Your task to perform on an android device: turn off improve location accuracy Image 0: 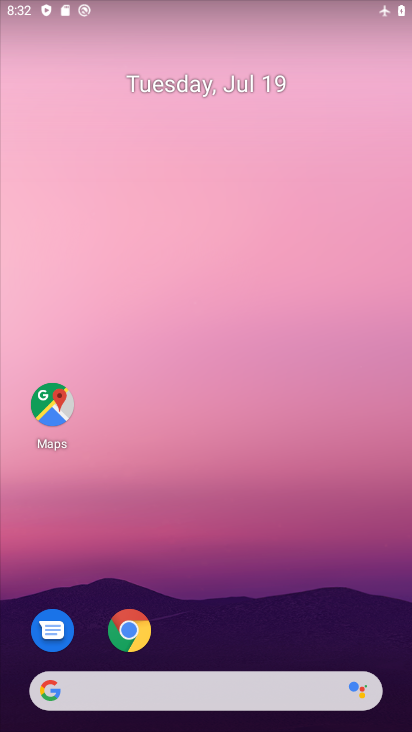
Step 0: drag from (227, 631) to (250, 168)
Your task to perform on an android device: turn off improve location accuracy Image 1: 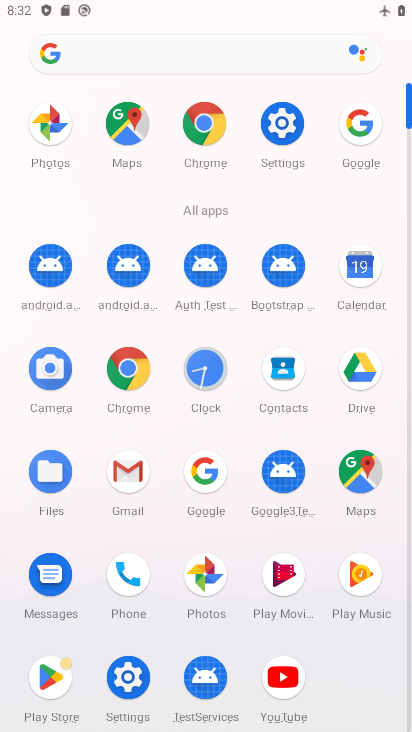
Step 1: click (278, 123)
Your task to perform on an android device: turn off improve location accuracy Image 2: 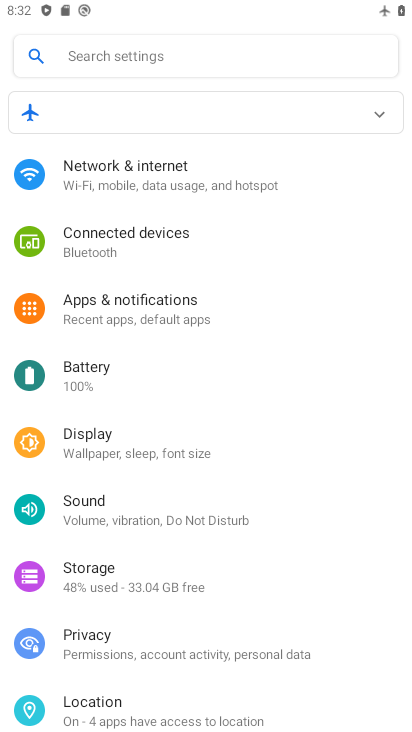
Step 2: drag from (227, 664) to (224, 350)
Your task to perform on an android device: turn off improve location accuracy Image 3: 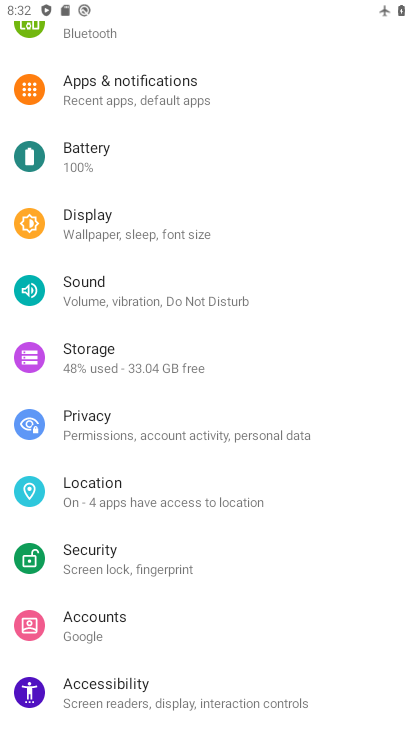
Step 3: click (104, 488)
Your task to perform on an android device: turn off improve location accuracy Image 4: 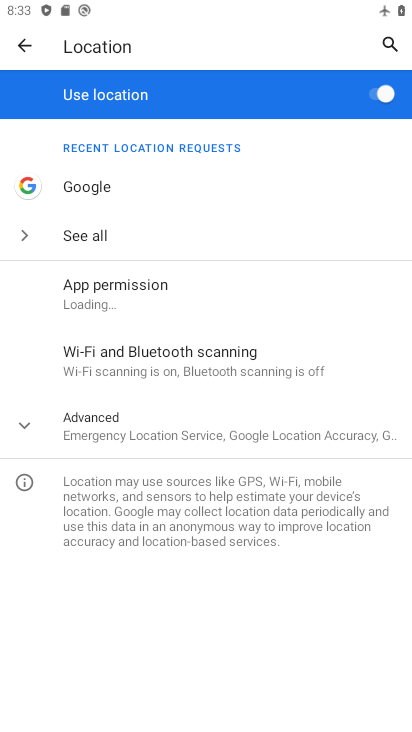
Step 4: click (95, 424)
Your task to perform on an android device: turn off improve location accuracy Image 5: 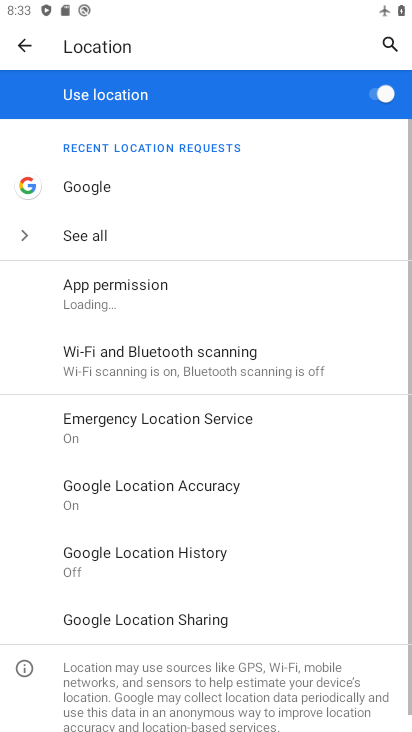
Step 5: click (150, 493)
Your task to perform on an android device: turn off improve location accuracy Image 6: 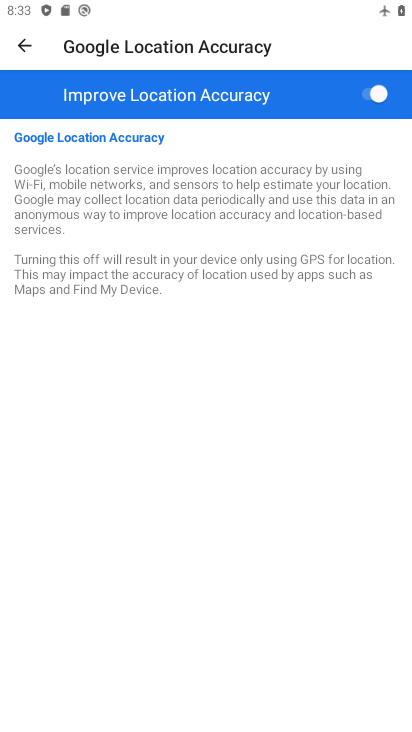
Step 6: click (374, 88)
Your task to perform on an android device: turn off improve location accuracy Image 7: 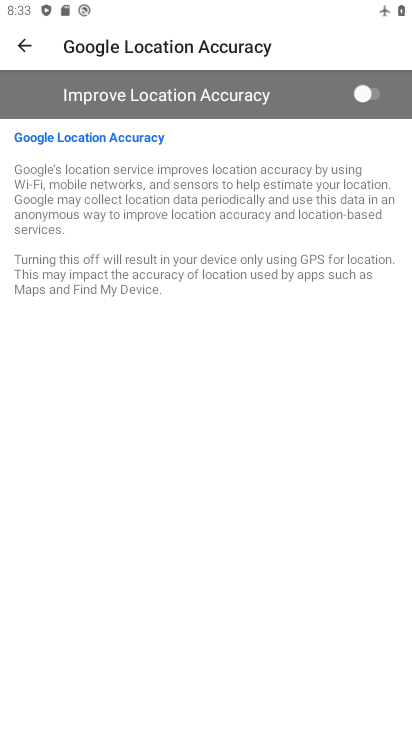
Step 7: task complete